Your task to perform on an android device: Clear the shopping cart on walmart.com. Image 0: 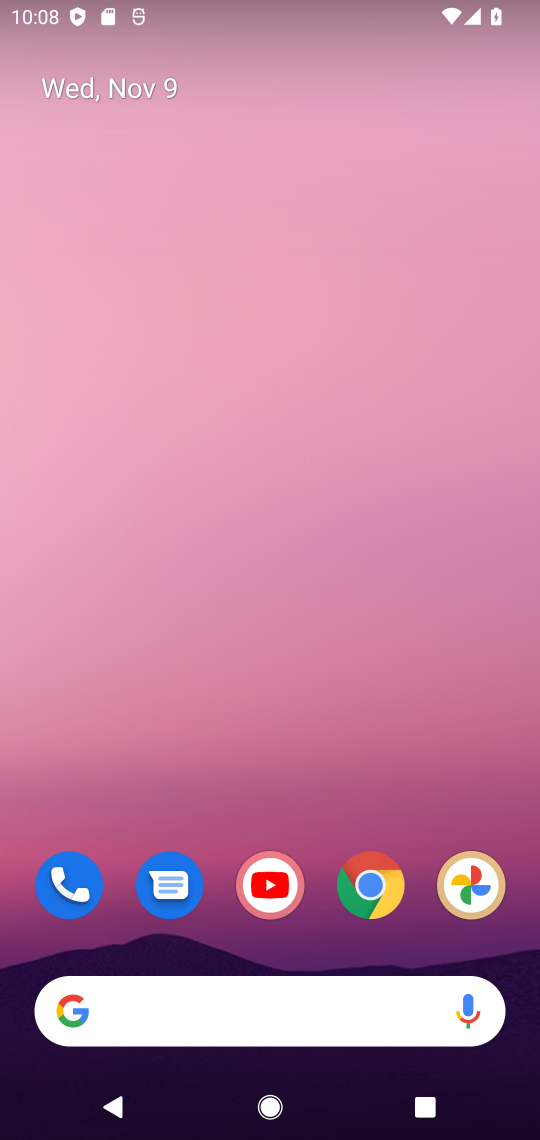
Step 0: click (369, 883)
Your task to perform on an android device: Clear the shopping cart on walmart.com. Image 1: 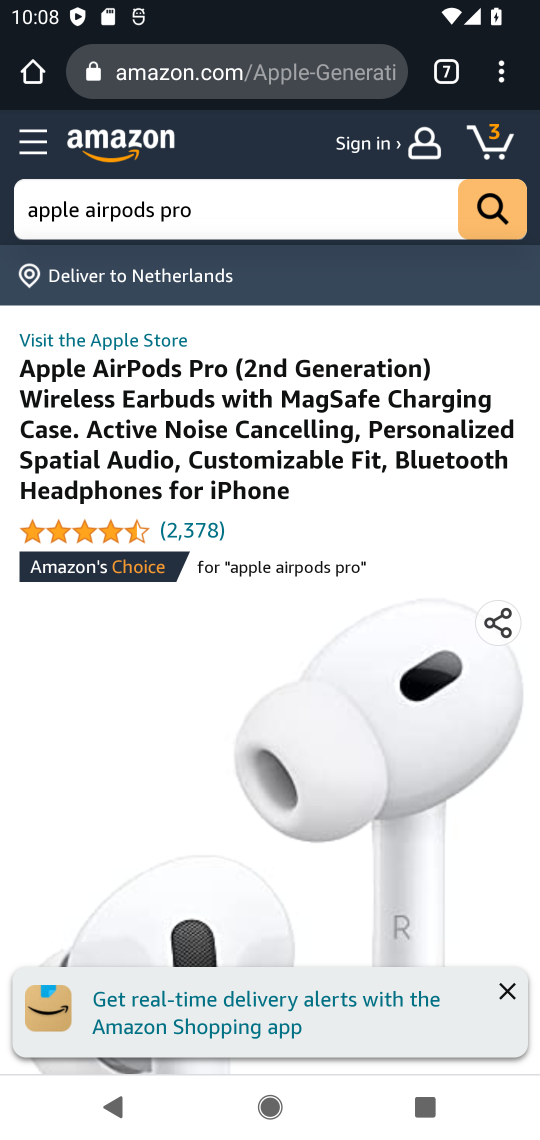
Step 1: click (451, 71)
Your task to perform on an android device: Clear the shopping cart on walmart.com. Image 2: 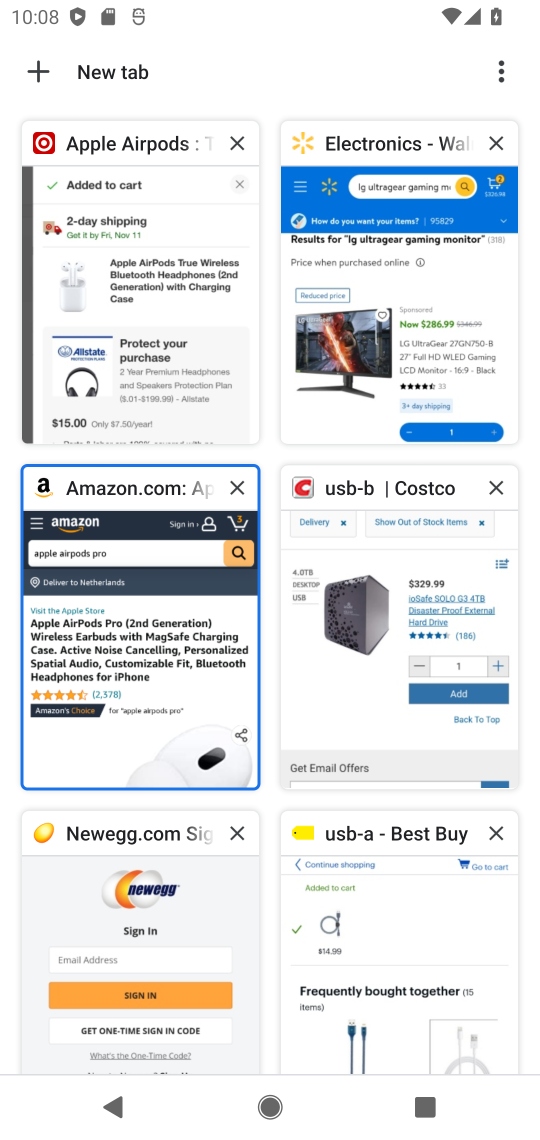
Step 2: click (409, 294)
Your task to perform on an android device: Clear the shopping cart on walmart.com. Image 3: 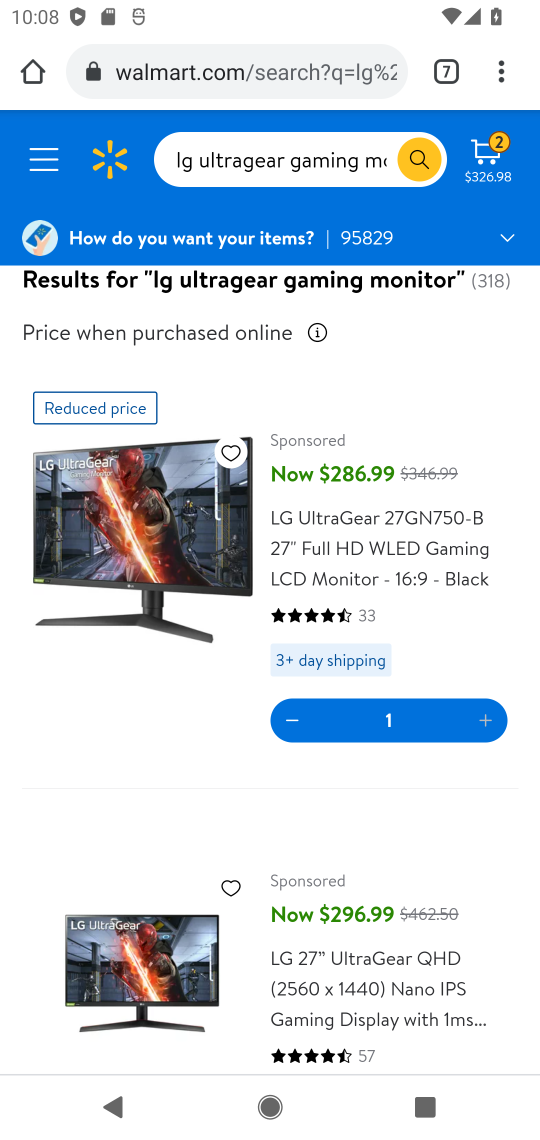
Step 3: click (502, 159)
Your task to perform on an android device: Clear the shopping cart on walmart.com. Image 4: 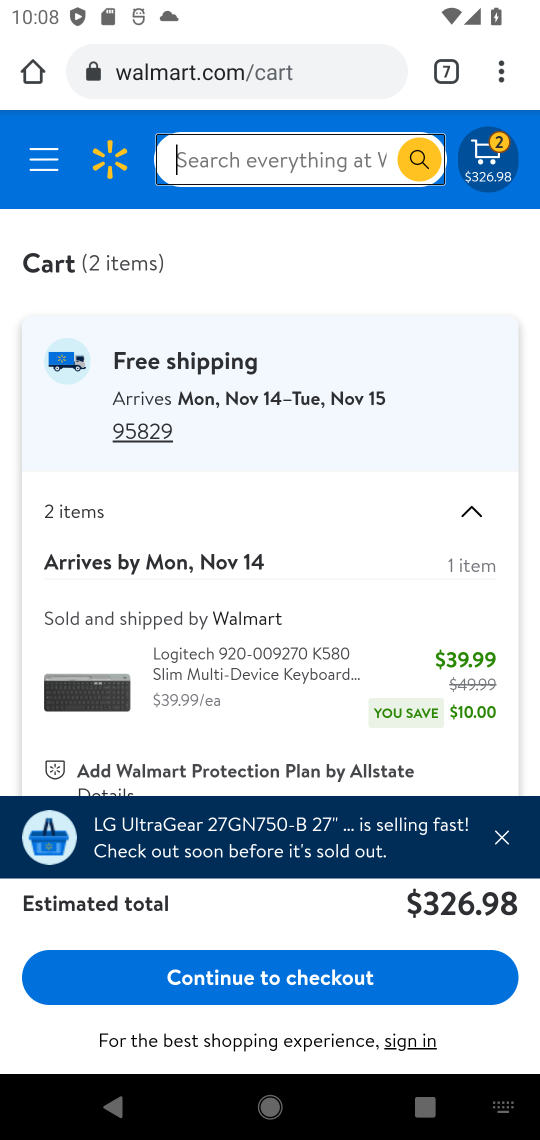
Step 4: click (501, 840)
Your task to perform on an android device: Clear the shopping cart on walmart.com. Image 5: 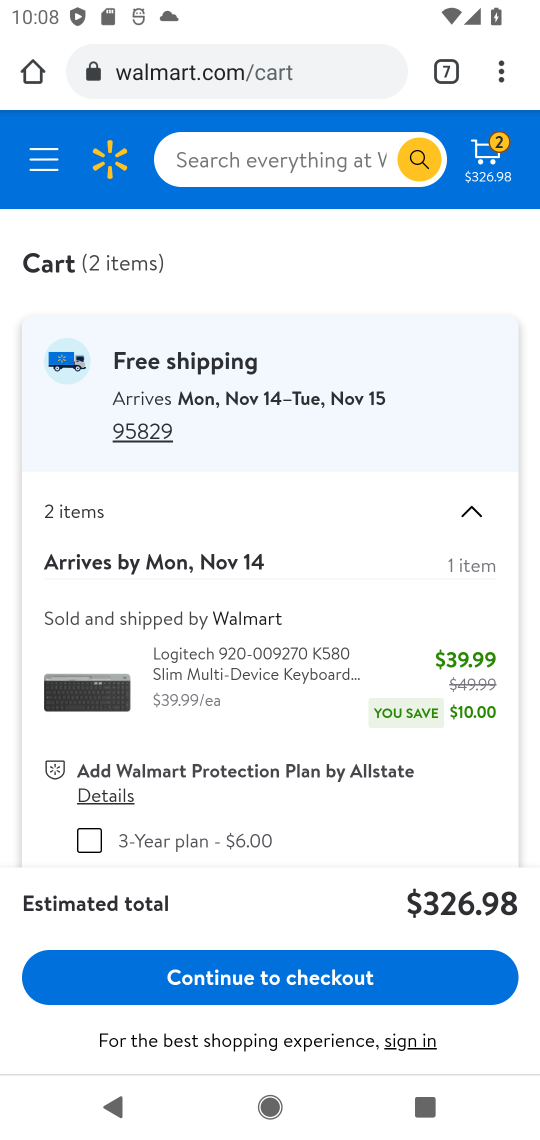
Step 5: drag from (227, 845) to (185, 633)
Your task to perform on an android device: Clear the shopping cart on walmart.com. Image 6: 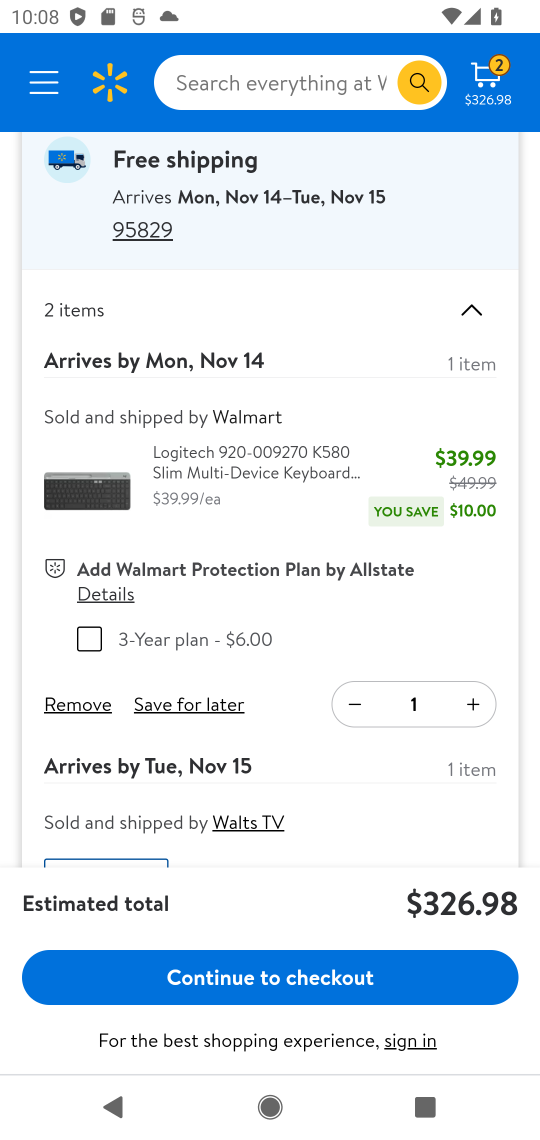
Step 6: click (85, 705)
Your task to perform on an android device: Clear the shopping cart on walmart.com. Image 7: 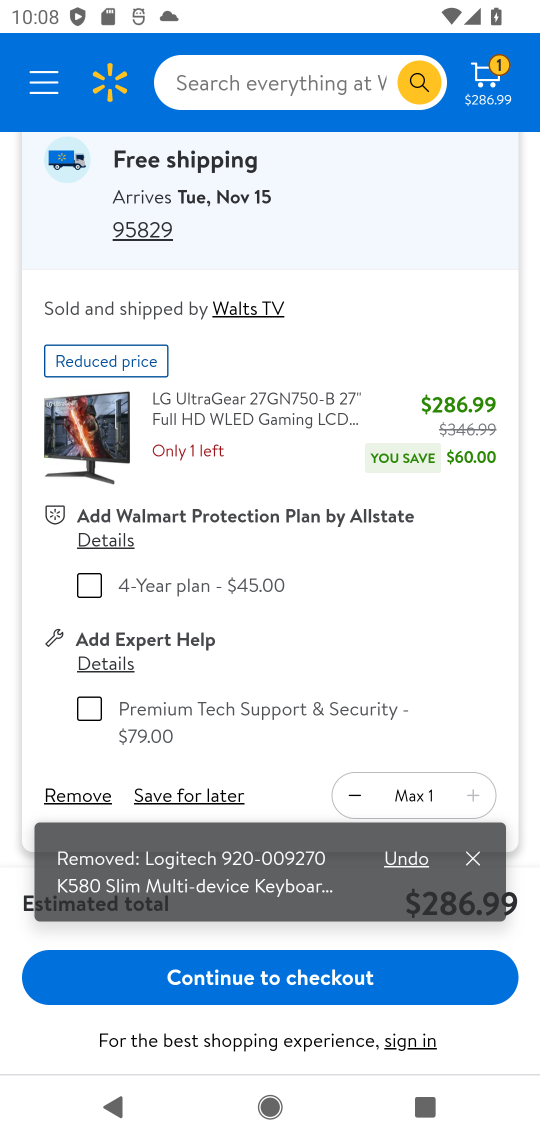
Step 7: click (86, 797)
Your task to perform on an android device: Clear the shopping cart on walmart.com. Image 8: 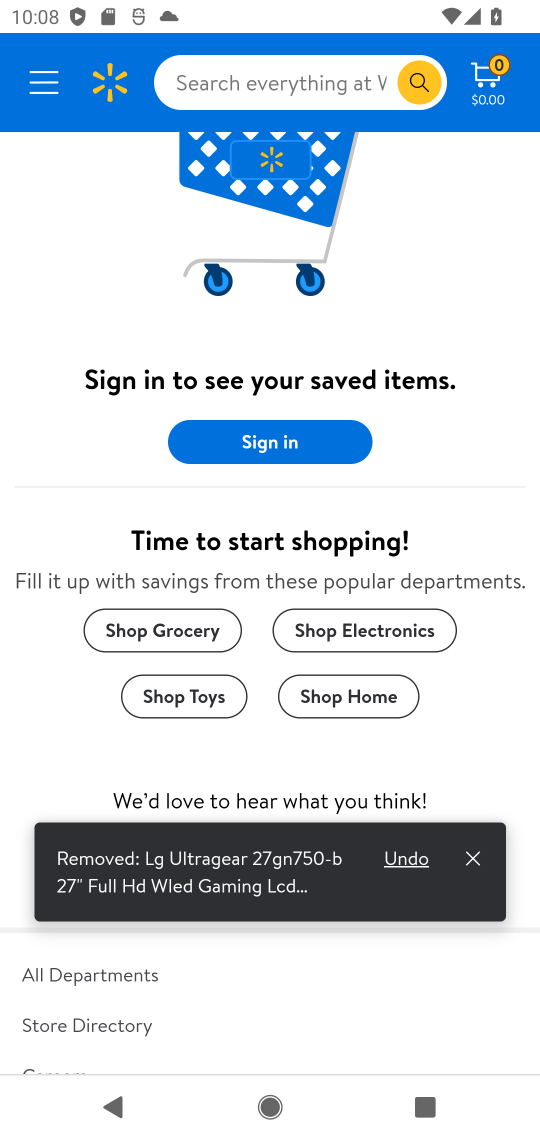
Step 8: task complete